Your task to perform on an android device: Open the web browser Image 0: 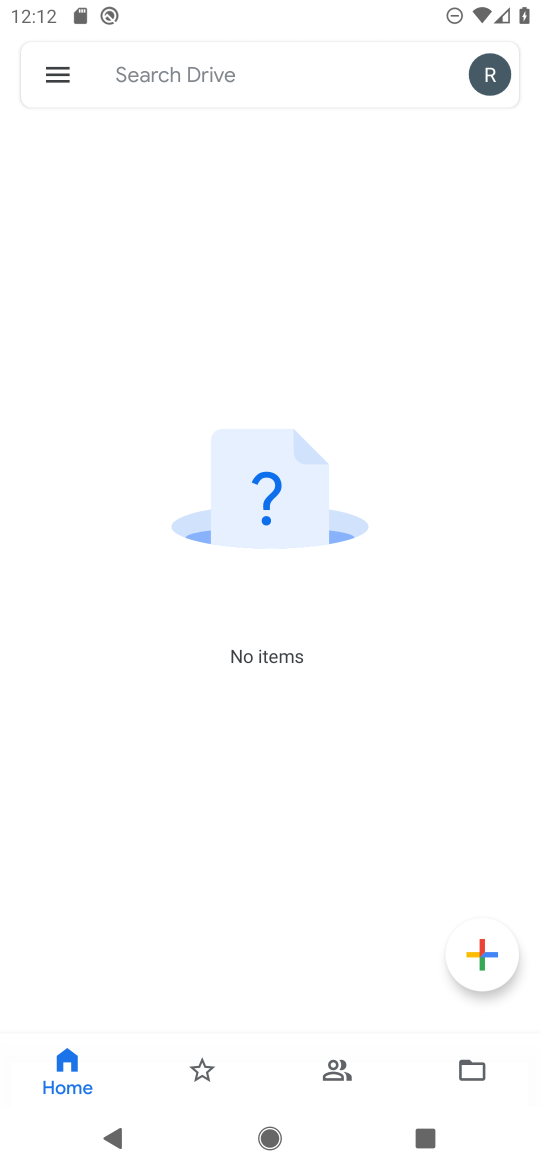
Step 0: press home button
Your task to perform on an android device: Open the web browser Image 1: 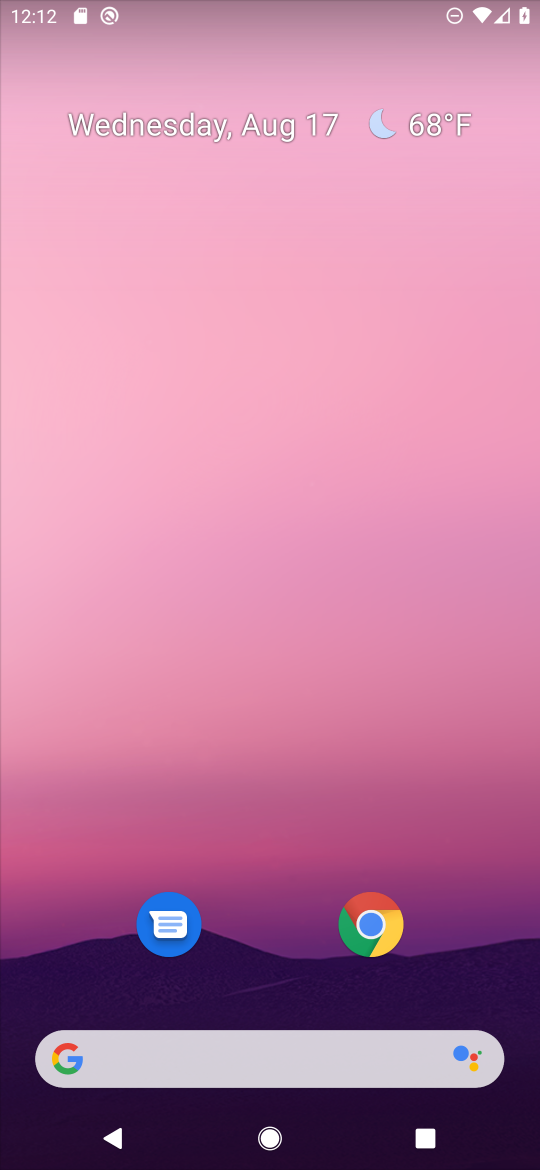
Step 1: click (354, 1061)
Your task to perform on an android device: Open the web browser Image 2: 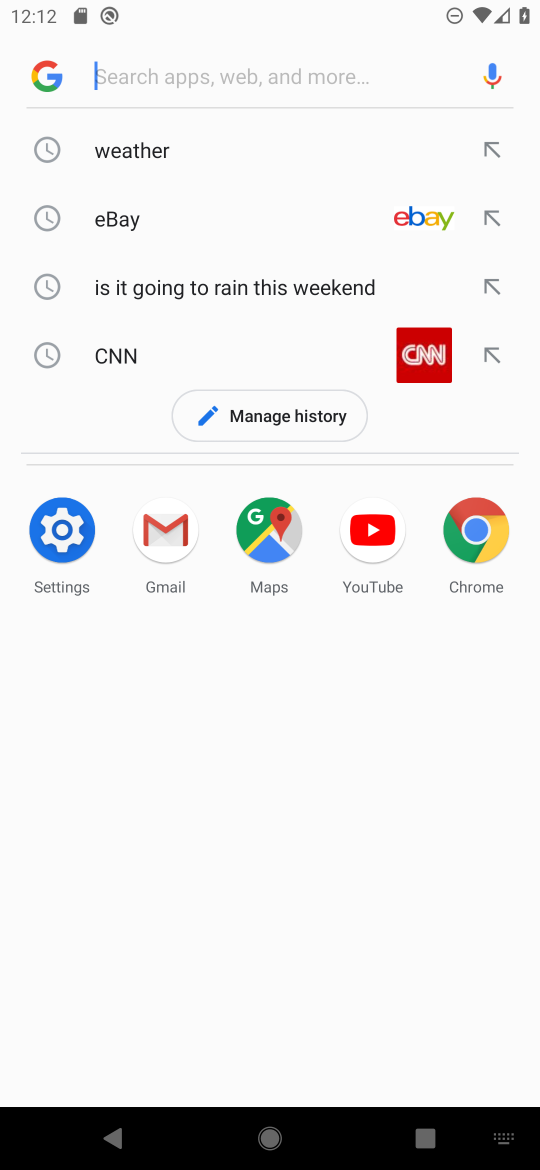
Step 2: task complete